Your task to perform on an android device: open app "Fetch Rewards" Image 0: 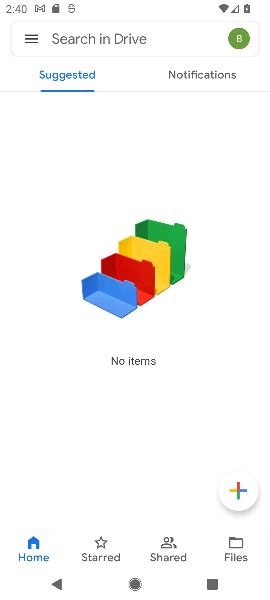
Step 0: press home button
Your task to perform on an android device: open app "Fetch Rewards" Image 1: 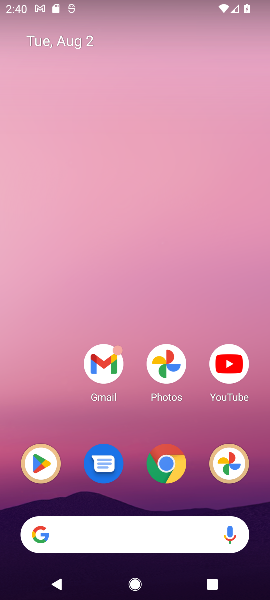
Step 1: click (43, 465)
Your task to perform on an android device: open app "Fetch Rewards" Image 2: 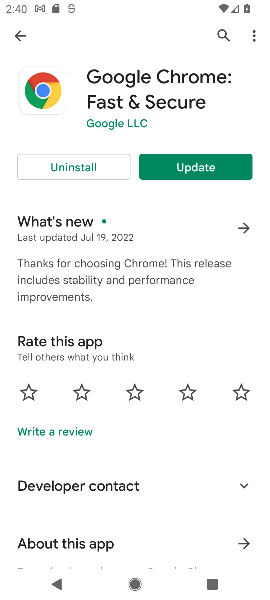
Step 2: click (223, 34)
Your task to perform on an android device: open app "Fetch Rewards" Image 3: 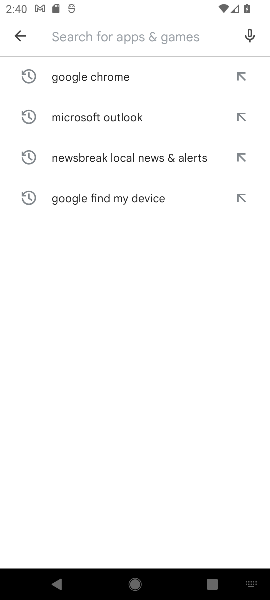
Step 3: type "Fetch Rewards"
Your task to perform on an android device: open app "Fetch Rewards" Image 4: 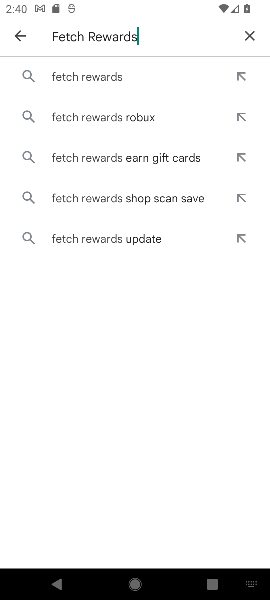
Step 4: click (108, 76)
Your task to perform on an android device: open app "Fetch Rewards" Image 5: 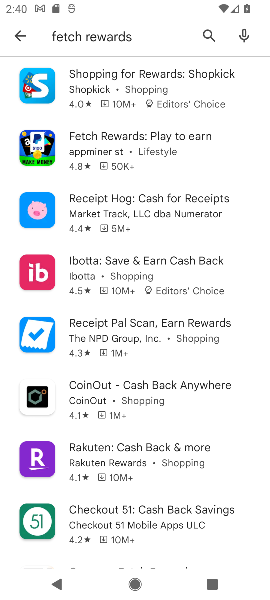
Step 5: click (119, 155)
Your task to perform on an android device: open app "Fetch Rewards" Image 6: 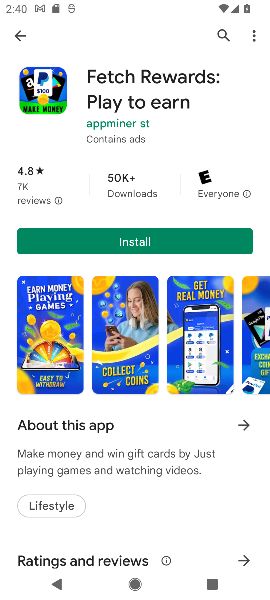
Step 6: task complete